Your task to perform on an android device: set the stopwatch Image 0: 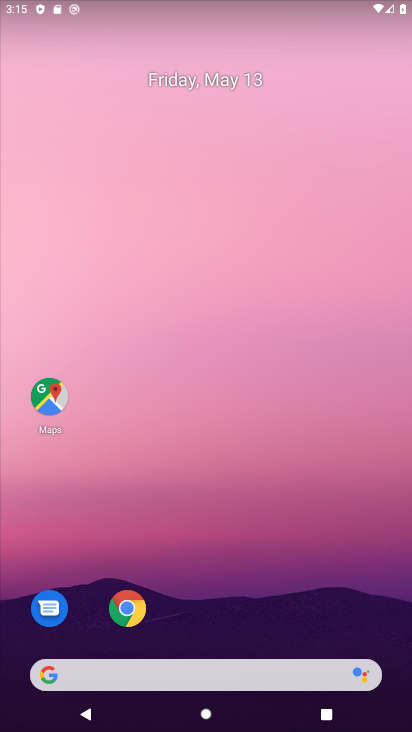
Step 0: drag from (243, 638) to (299, 51)
Your task to perform on an android device: set the stopwatch Image 1: 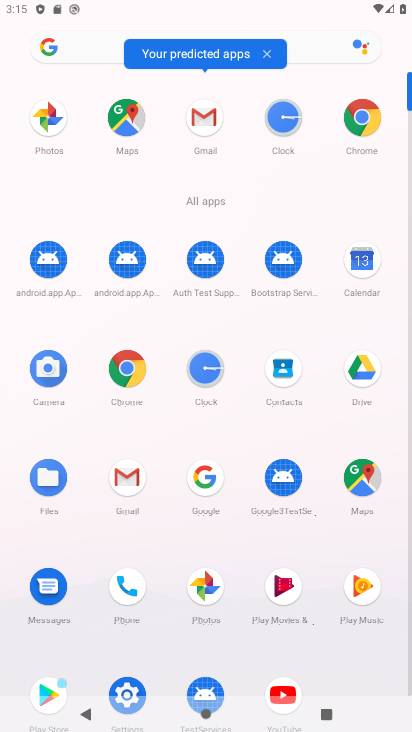
Step 1: click (202, 377)
Your task to perform on an android device: set the stopwatch Image 2: 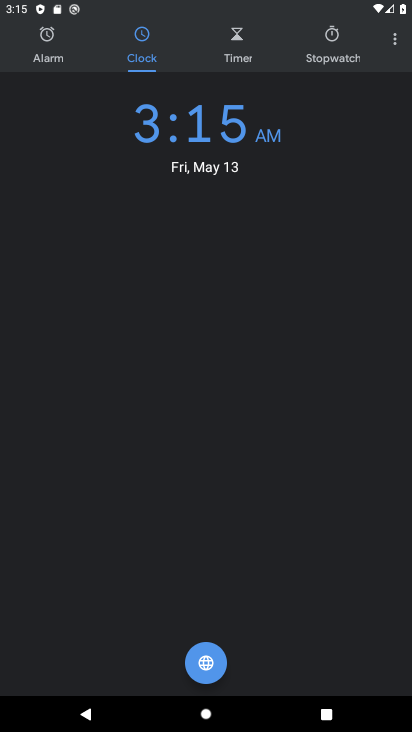
Step 2: click (296, 55)
Your task to perform on an android device: set the stopwatch Image 3: 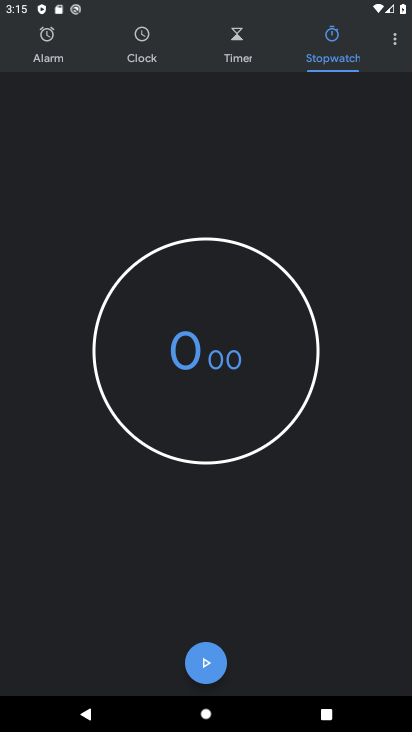
Step 3: click (217, 651)
Your task to perform on an android device: set the stopwatch Image 4: 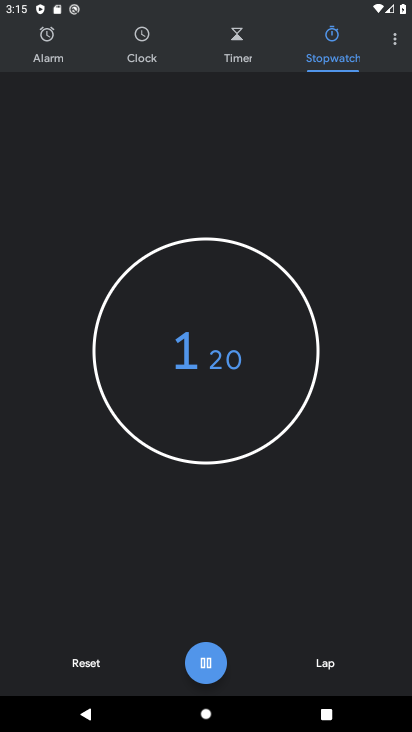
Step 4: task complete